Your task to perform on an android device: toggle airplane mode Image 0: 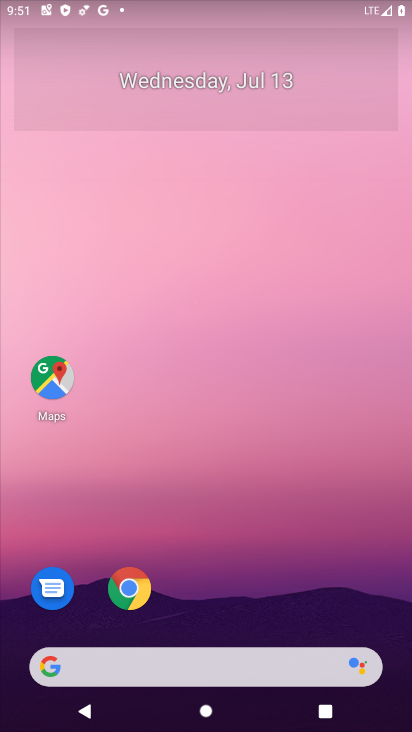
Step 0: drag from (226, 599) to (250, 117)
Your task to perform on an android device: toggle airplane mode Image 1: 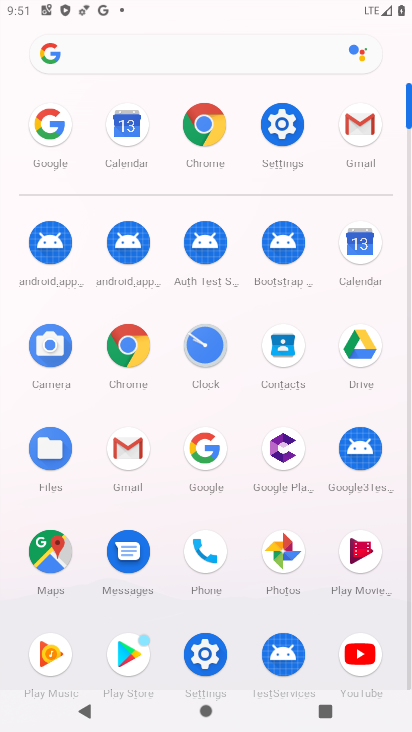
Step 1: click (284, 128)
Your task to perform on an android device: toggle airplane mode Image 2: 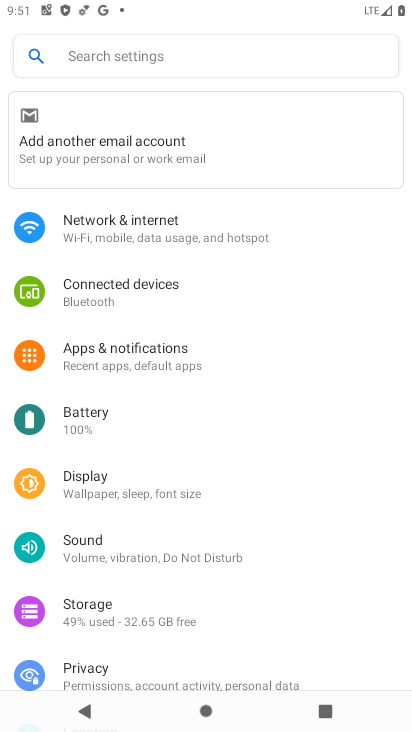
Step 2: click (176, 227)
Your task to perform on an android device: toggle airplane mode Image 3: 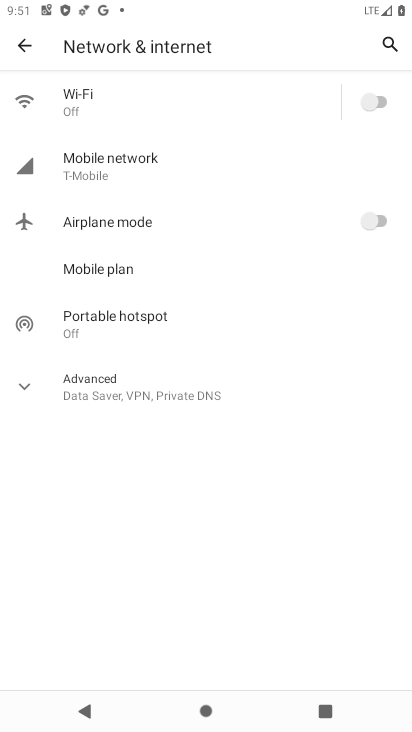
Step 3: click (379, 218)
Your task to perform on an android device: toggle airplane mode Image 4: 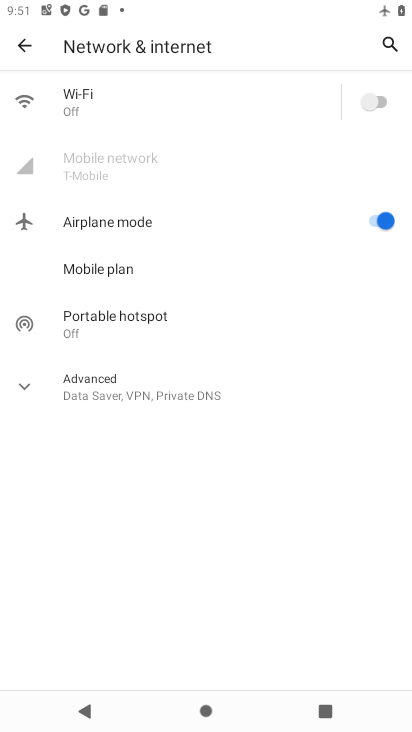
Step 4: task complete